Your task to perform on an android device: Is it going to rain today? Image 0: 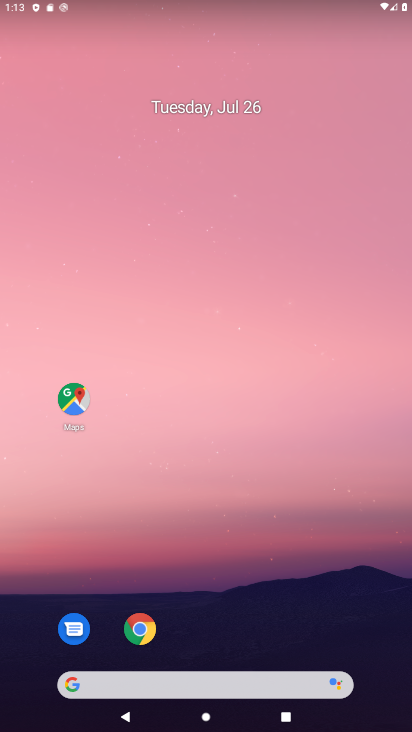
Step 0: drag from (159, 655) to (411, 559)
Your task to perform on an android device: Is it going to rain today? Image 1: 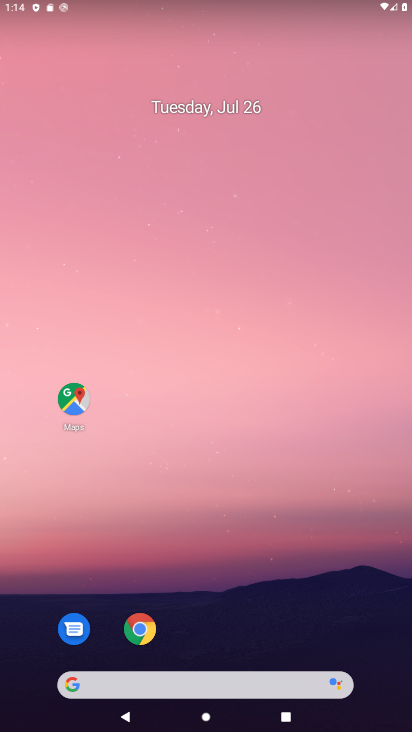
Step 1: click (131, 338)
Your task to perform on an android device: Is it going to rain today? Image 2: 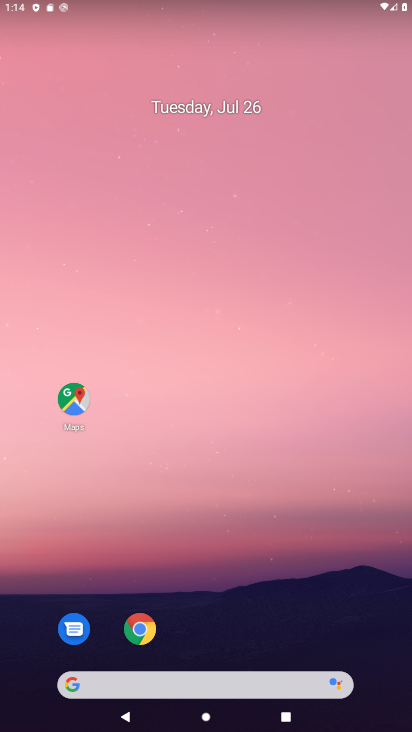
Step 2: drag from (217, 668) to (318, 24)
Your task to perform on an android device: Is it going to rain today? Image 3: 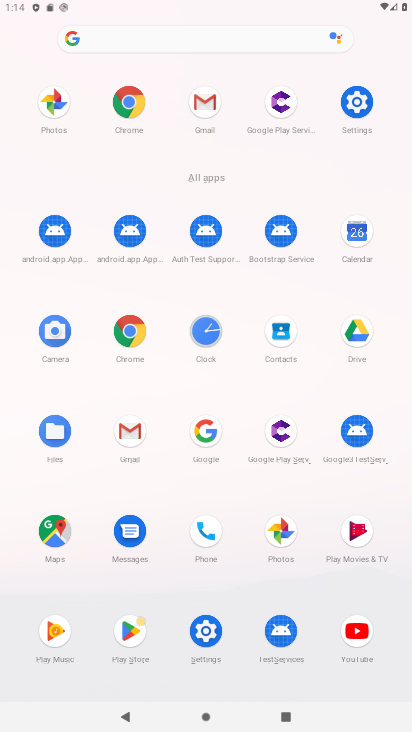
Step 3: click (126, 330)
Your task to perform on an android device: Is it going to rain today? Image 4: 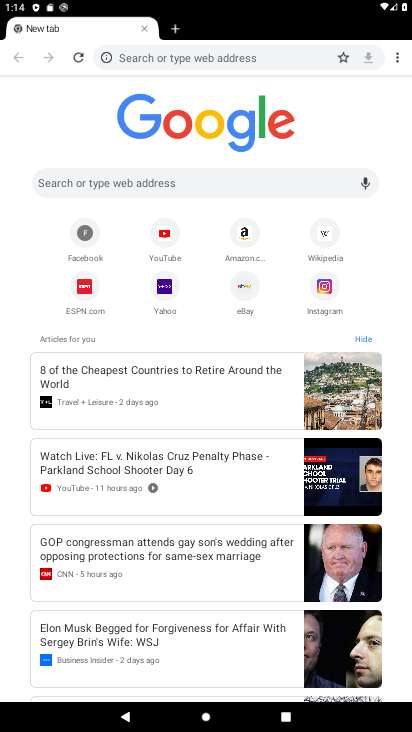
Step 4: click (231, 54)
Your task to perform on an android device: Is it going to rain today? Image 5: 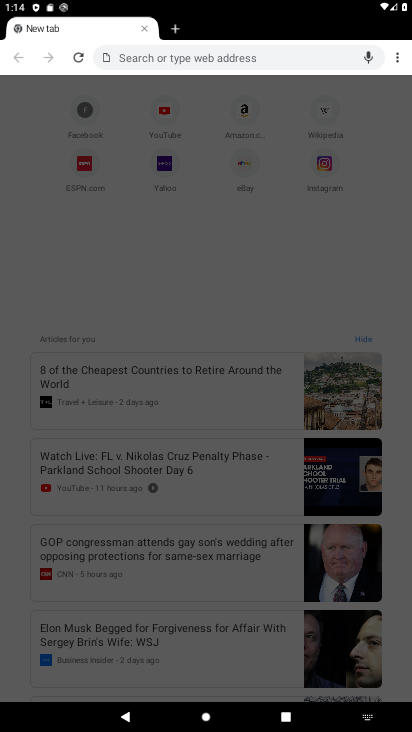
Step 5: type "is it going to rain today"
Your task to perform on an android device: Is it going to rain today? Image 6: 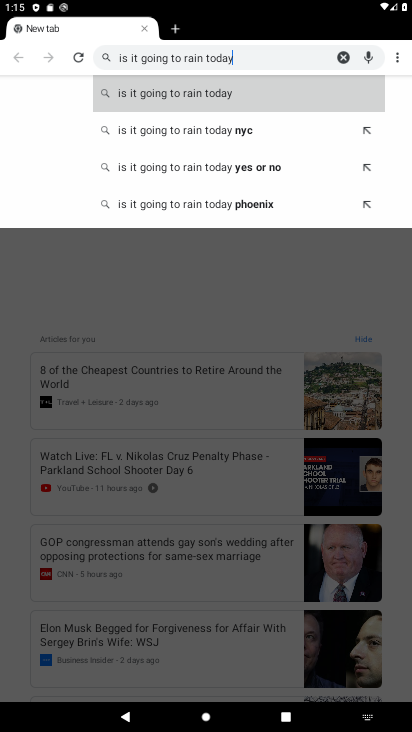
Step 6: click (240, 101)
Your task to perform on an android device: Is it going to rain today? Image 7: 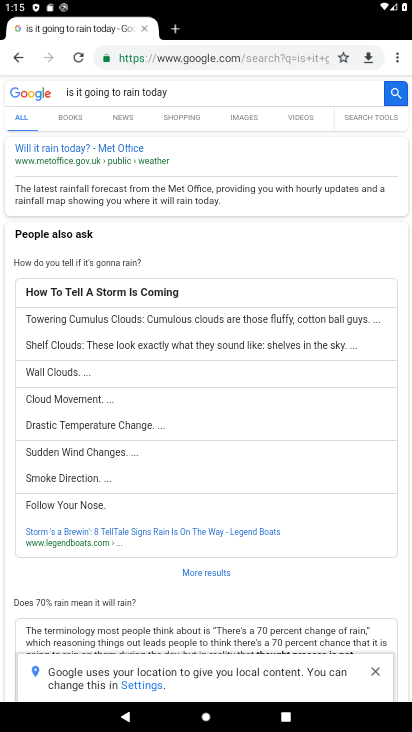
Step 7: task complete